Your task to perform on an android device: open device folders in google photos Image 0: 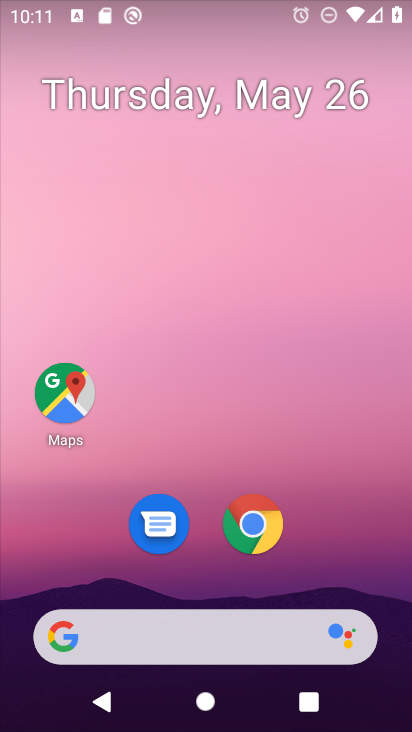
Step 0: drag from (335, 530) to (248, 14)
Your task to perform on an android device: open device folders in google photos Image 1: 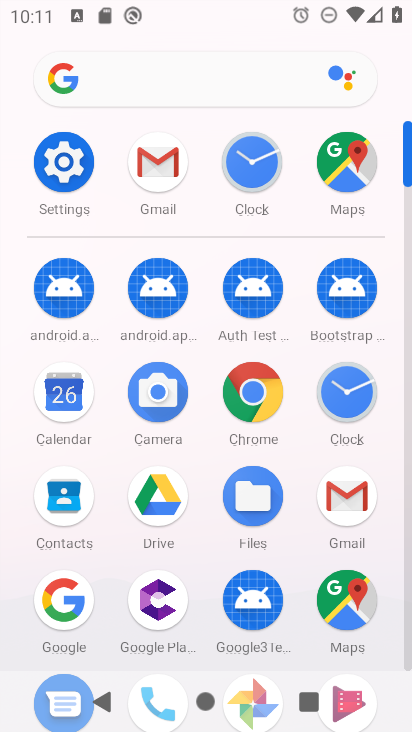
Step 1: drag from (219, 552) to (209, 302)
Your task to perform on an android device: open device folders in google photos Image 2: 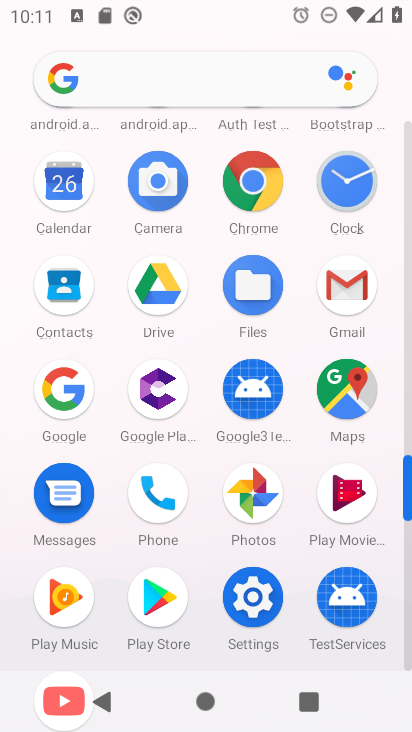
Step 2: click (251, 467)
Your task to perform on an android device: open device folders in google photos Image 3: 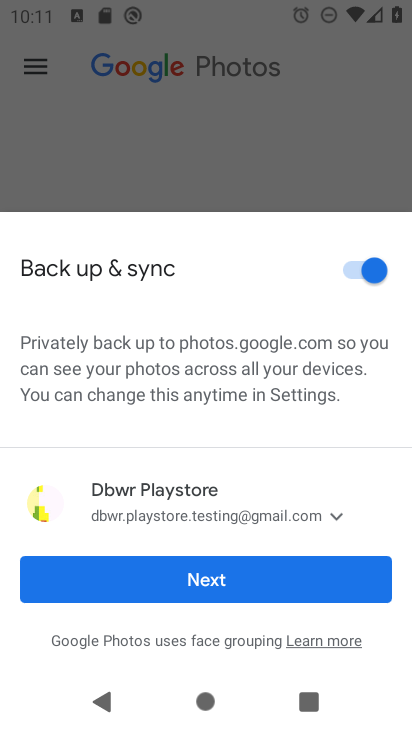
Step 3: click (298, 577)
Your task to perform on an android device: open device folders in google photos Image 4: 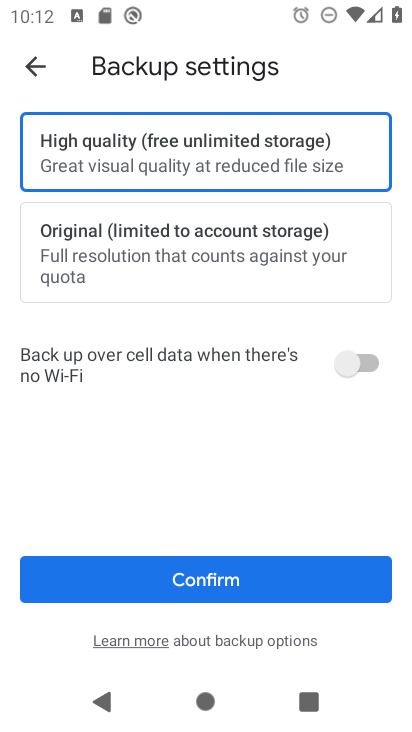
Step 4: click (298, 577)
Your task to perform on an android device: open device folders in google photos Image 5: 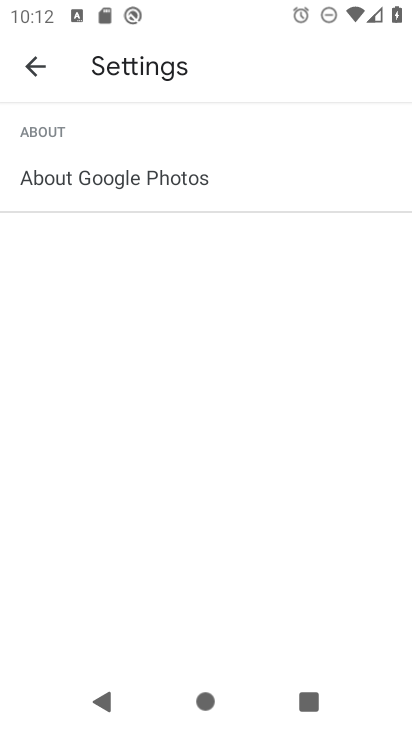
Step 5: click (26, 48)
Your task to perform on an android device: open device folders in google photos Image 6: 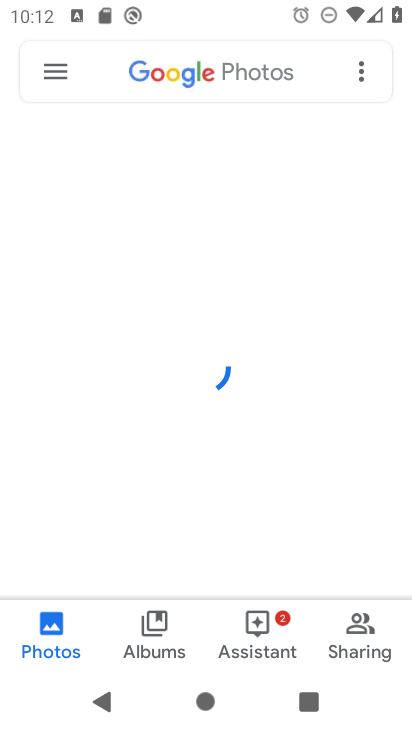
Step 6: click (48, 68)
Your task to perform on an android device: open device folders in google photos Image 7: 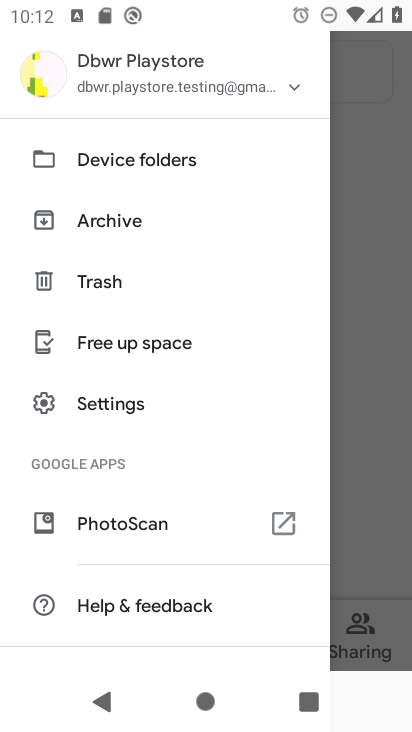
Step 7: click (84, 154)
Your task to perform on an android device: open device folders in google photos Image 8: 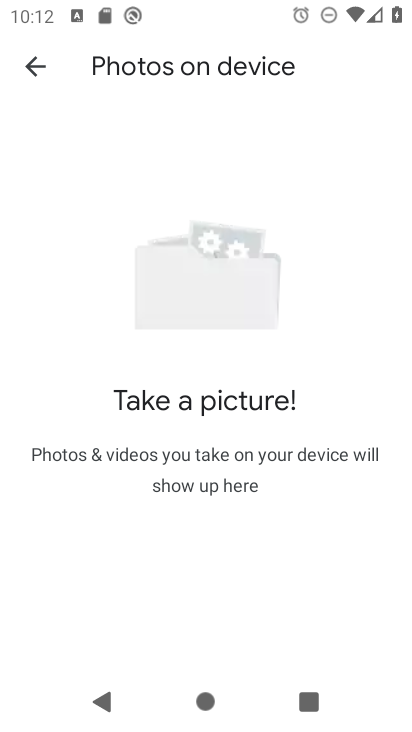
Step 8: task complete